Your task to perform on an android device: Search for Mexican restaurants on Maps Image 0: 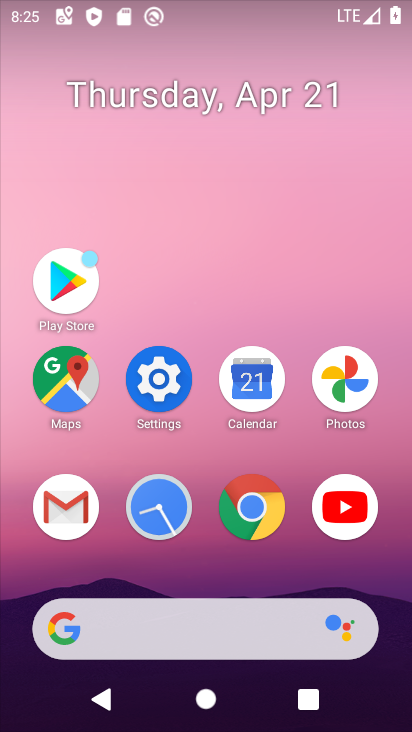
Step 0: click (55, 376)
Your task to perform on an android device: Search for Mexican restaurants on Maps Image 1: 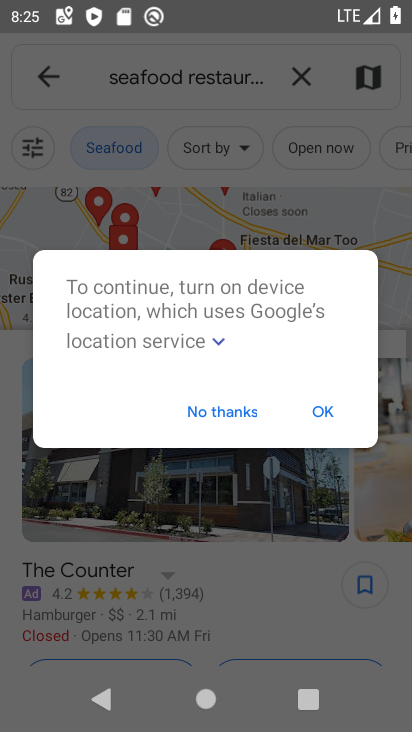
Step 1: click (322, 408)
Your task to perform on an android device: Search for Mexican restaurants on Maps Image 2: 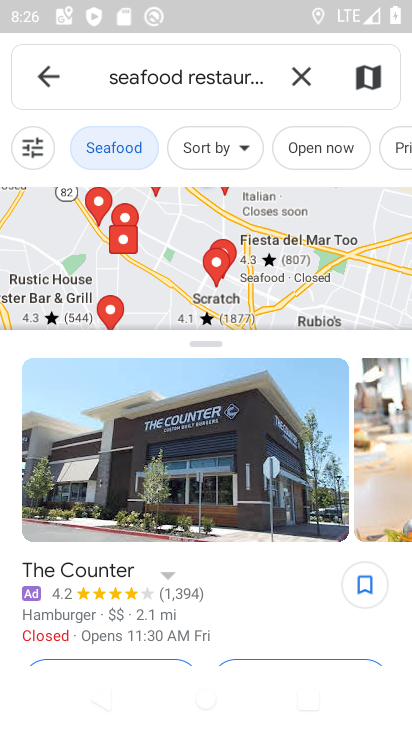
Step 2: click (303, 70)
Your task to perform on an android device: Search for Mexican restaurants on Maps Image 3: 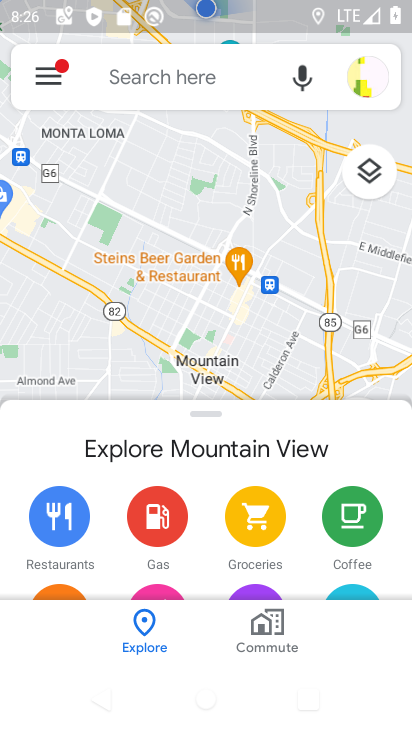
Step 3: click (131, 72)
Your task to perform on an android device: Search for Mexican restaurants on Maps Image 4: 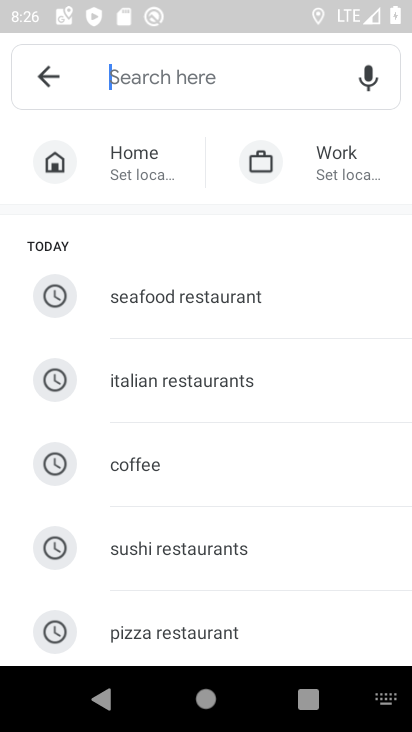
Step 4: type "Mexican restaurant"
Your task to perform on an android device: Search for Mexican restaurants on Maps Image 5: 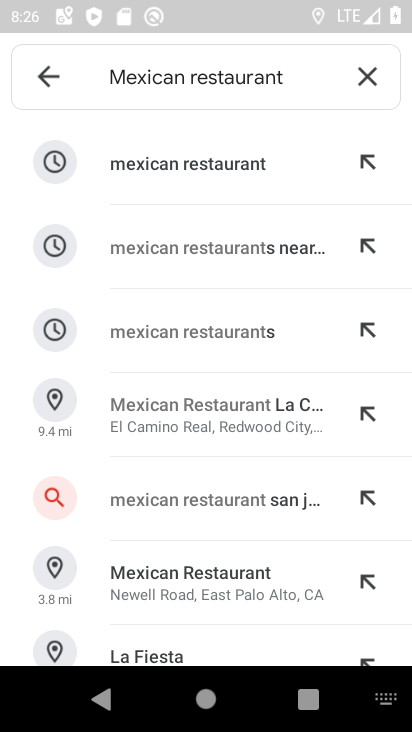
Step 5: click (223, 160)
Your task to perform on an android device: Search for Mexican restaurants on Maps Image 6: 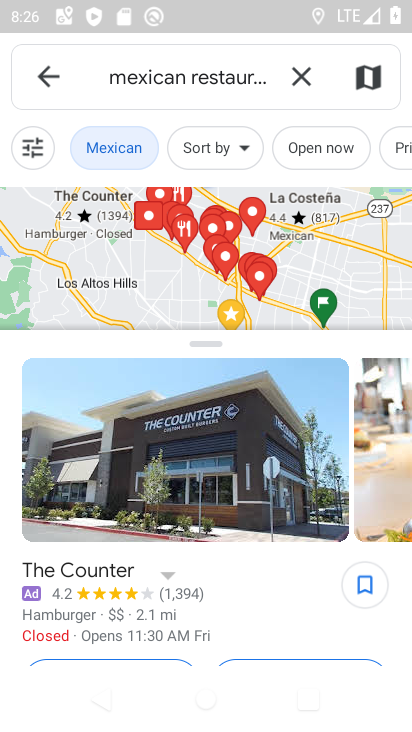
Step 6: task complete